Your task to perform on an android device: Show me popular videos on Youtube Image 0: 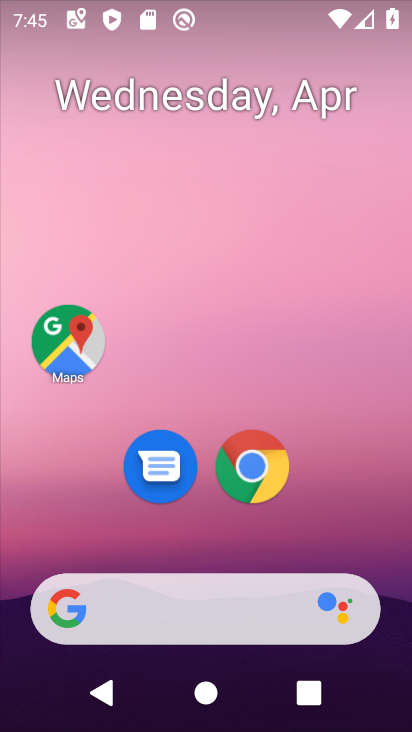
Step 0: drag from (317, 267) to (335, 164)
Your task to perform on an android device: Show me popular videos on Youtube Image 1: 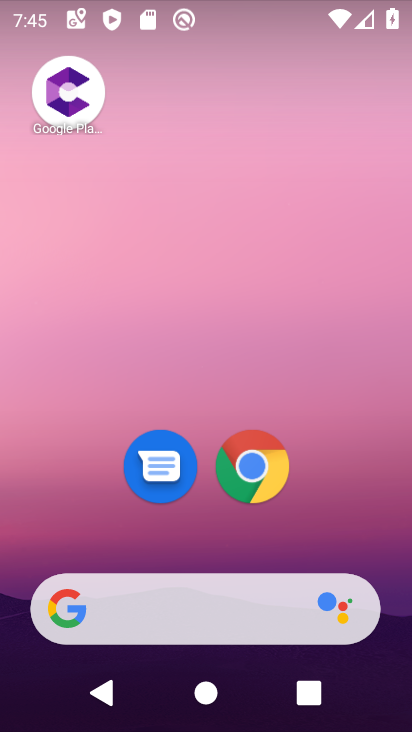
Step 1: drag from (297, 443) to (295, 116)
Your task to perform on an android device: Show me popular videos on Youtube Image 2: 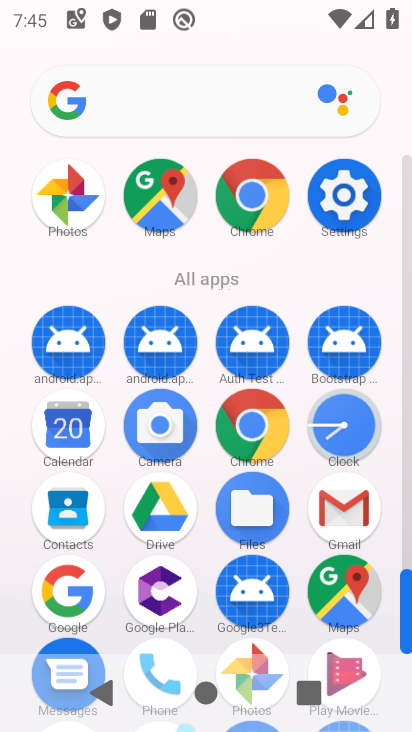
Step 2: drag from (165, 499) to (245, 236)
Your task to perform on an android device: Show me popular videos on Youtube Image 3: 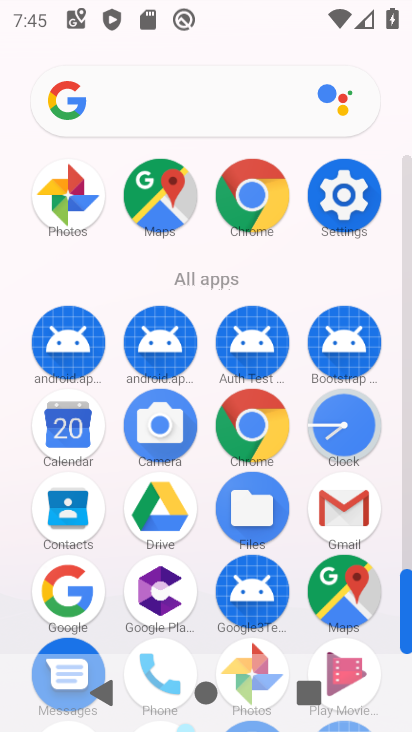
Step 3: drag from (212, 613) to (216, 306)
Your task to perform on an android device: Show me popular videos on Youtube Image 4: 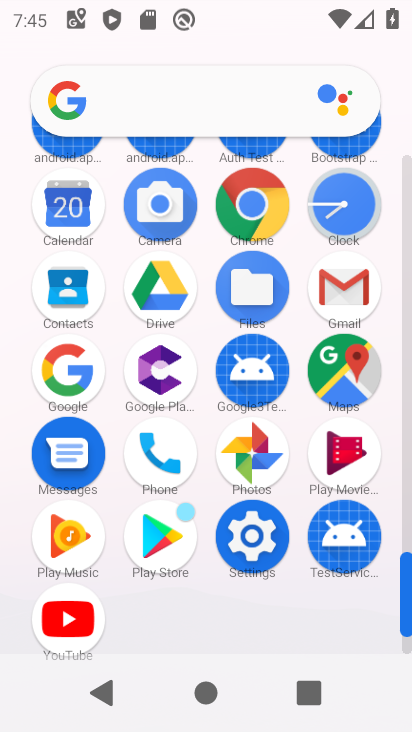
Step 4: click (82, 637)
Your task to perform on an android device: Show me popular videos on Youtube Image 5: 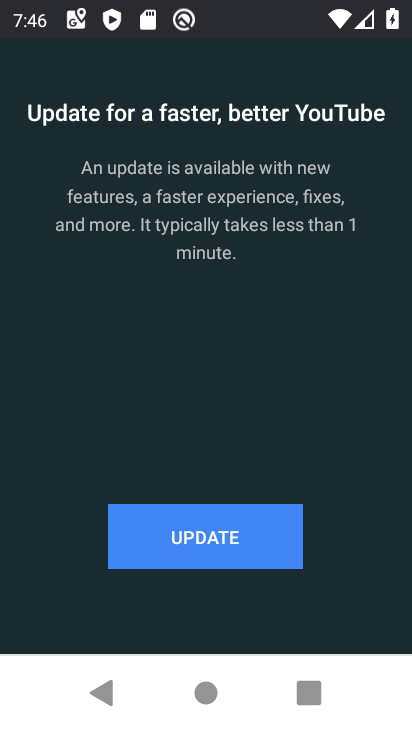
Step 5: click (237, 543)
Your task to perform on an android device: Show me popular videos on Youtube Image 6: 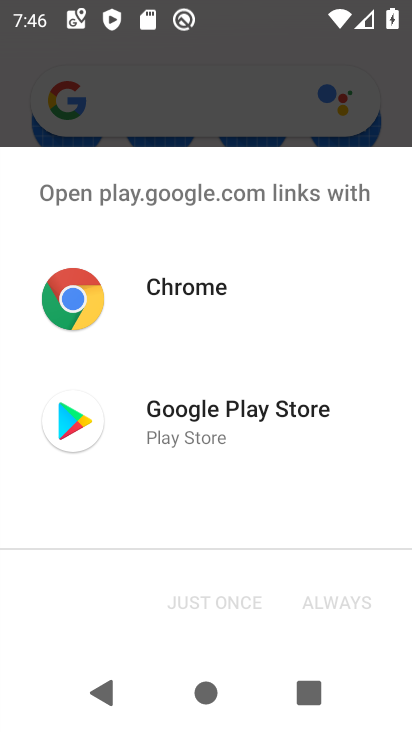
Step 6: click (226, 436)
Your task to perform on an android device: Show me popular videos on Youtube Image 7: 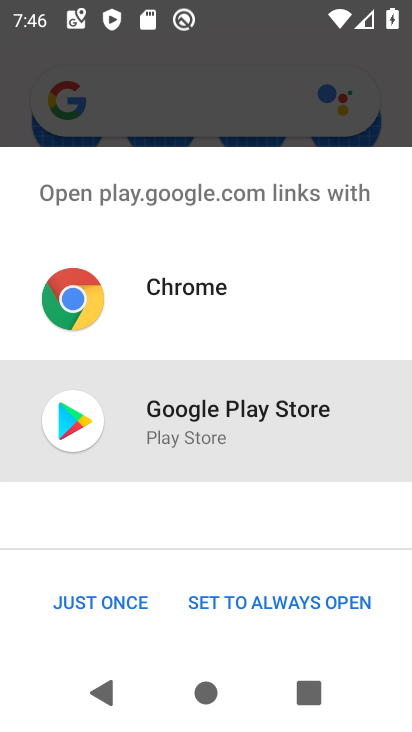
Step 7: click (133, 597)
Your task to perform on an android device: Show me popular videos on Youtube Image 8: 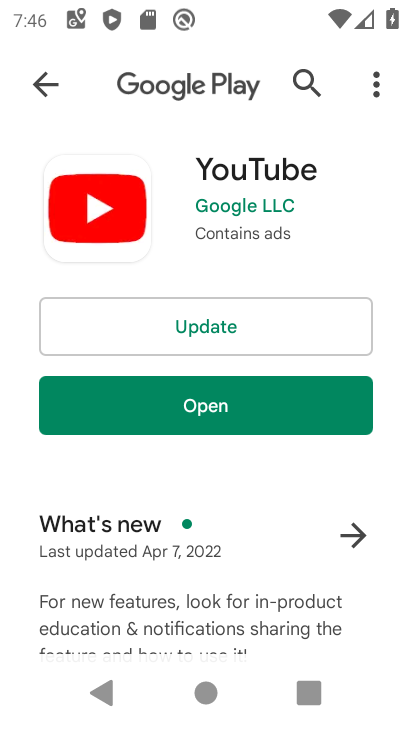
Step 8: click (222, 400)
Your task to perform on an android device: Show me popular videos on Youtube Image 9: 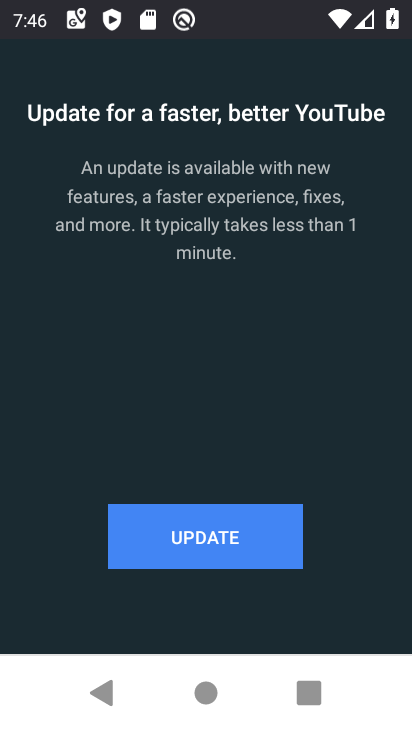
Step 9: click (184, 537)
Your task to perform on an android device: Show me popular videos on Youtube Image 10: 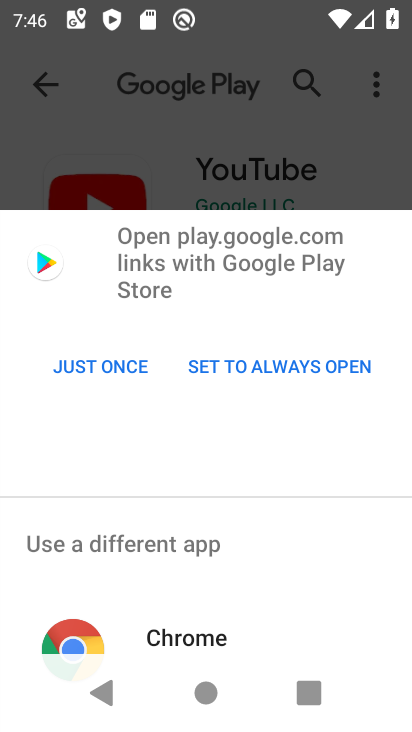
Step 10: click (106, 366)
Your task to perform on an android device: Show me popular videos on Youtube Image 11: 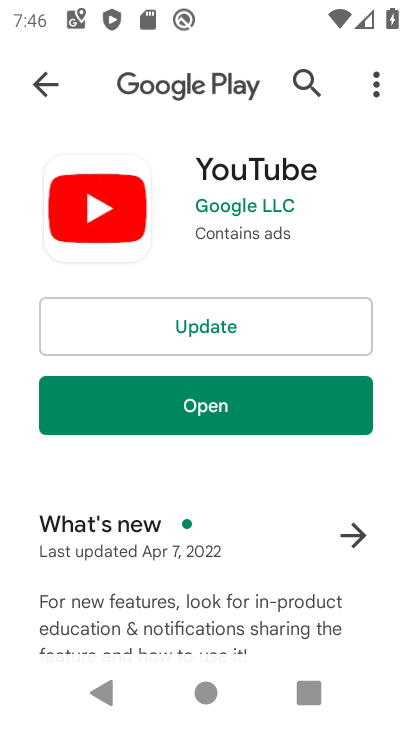
Step 11: click (185, 310)
Your task to perform on an android device: Show me popular videos on Youtube Image 12: 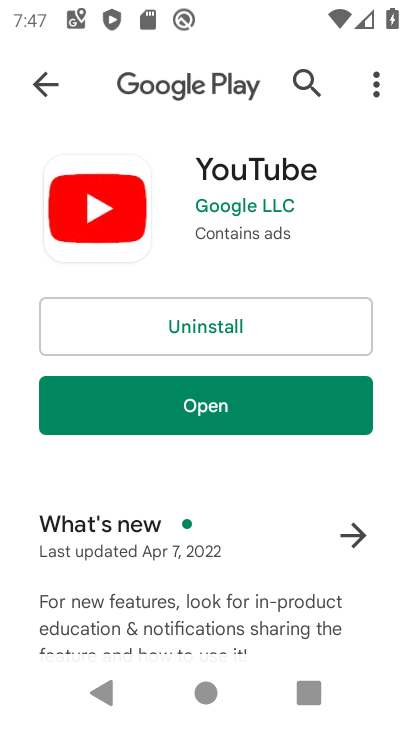
Step 12: click (197, 396)
Your task to perform on an android device: Show me popular videos on Youtube Image 13: 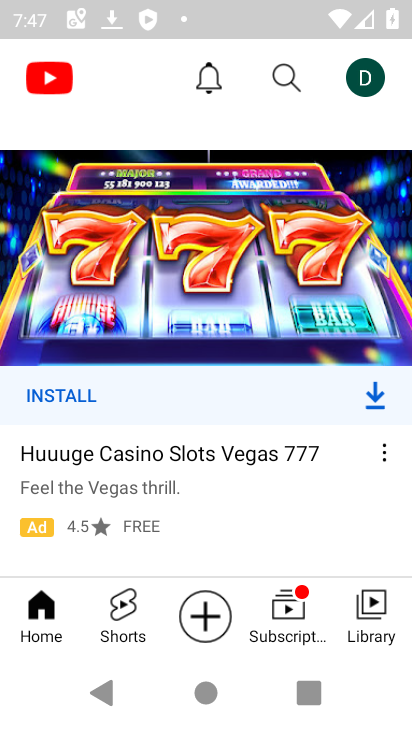
Step 13: drag from (235, 467) to (237, 221)
Your task to perform on an android device: Show me popular videos on Youtube Image 14: 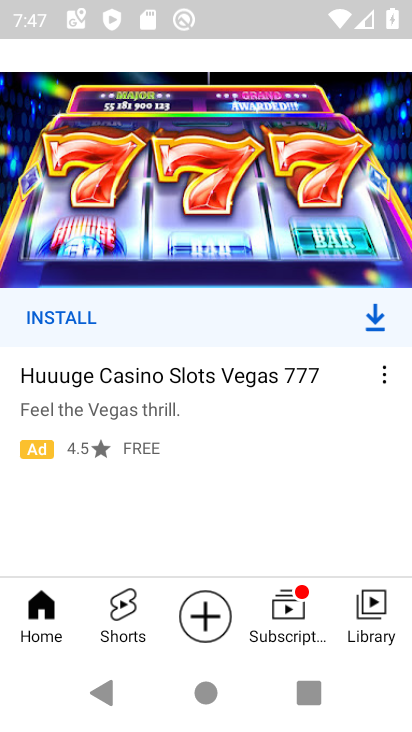
Step 14: drag from (229, 536) to (251, 300)
Your task to perform on an android device: Show me popular videos on Youtube Image 15: 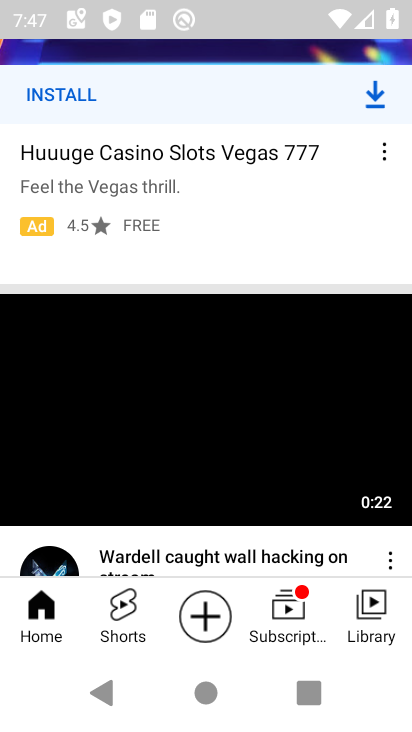
Step 15: drag from (227, 348) to (239, 253)
Your task to perform on an android device: Show me popular videos on Youtube Image 16: 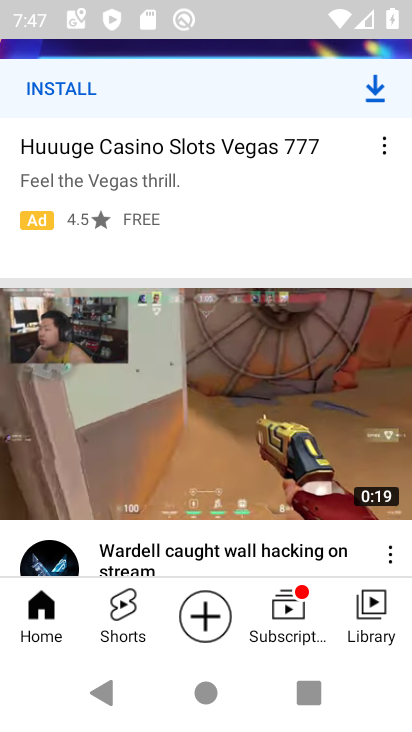
Step 16: drag from (216, 557) to (237, 231)
Your task to perform on an android device: Show me popular videos on Youtube Image 17: 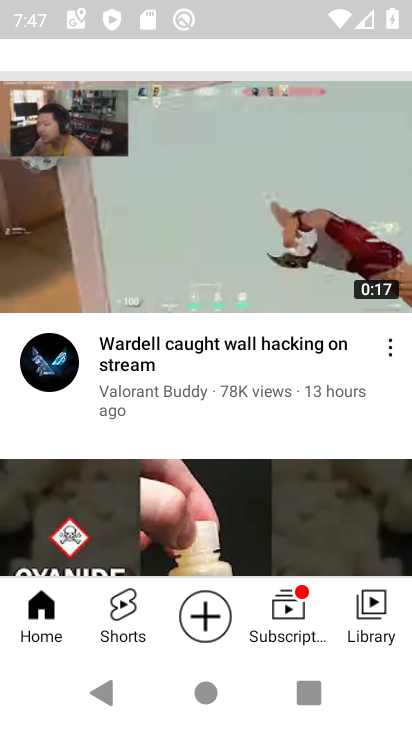
Step 17: drag from (223, 511) to (250, 177)
Your task to perform on an android device: Show me popular videos on Youtube Image 18: 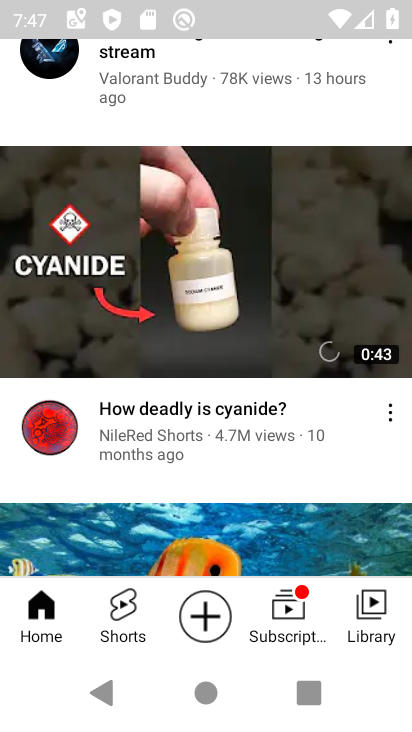
Step 18: drag from (245, 322) to (260, 205)
Your task to perform on an android device: Show me popular videos on Youtube Image 19: 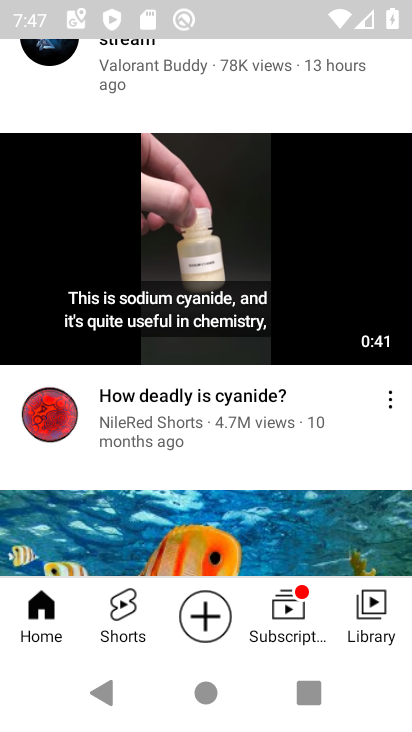
Step 19: drag from (270, 519) to (275, 236)
Your task to perform on an android device: Show me popular videos on Youtube Image 20: 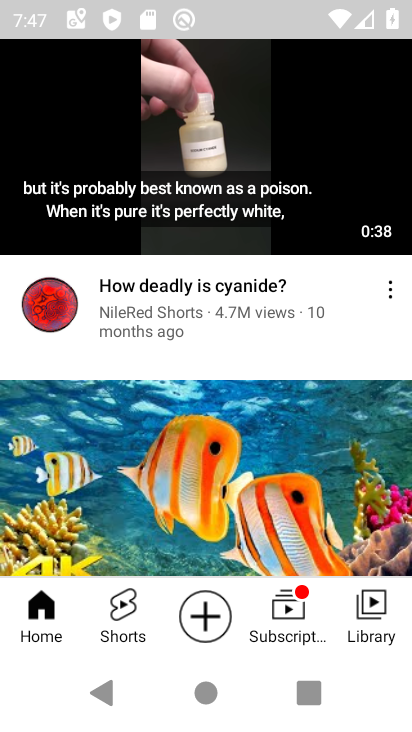
Step 20: drag from (294, 493) to (311, 224)
Your task to perform on an android device: Show me popular videos on Youtube Image 21: 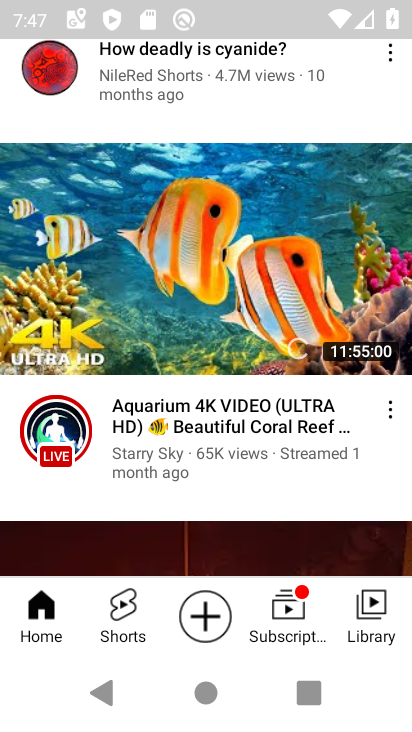
Step 21: click (323, 249)
Your task to perform on an android device: Show me popular videos on Youtube Image 22: 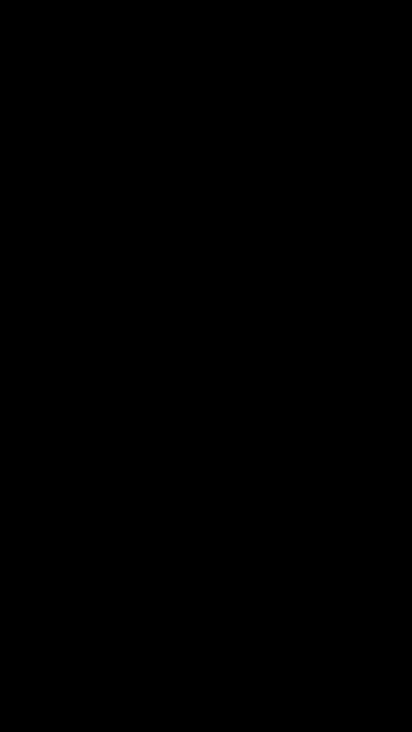
Step 22: task complete